Your task to perform on an android device: clear all cookies in the chrome app Image 0: 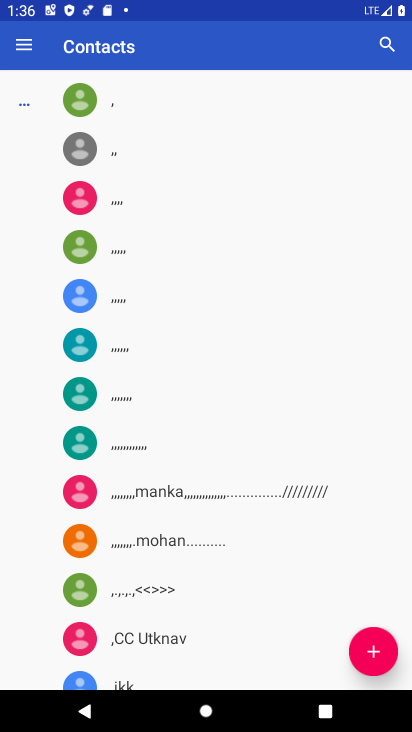
Step 0: press back button
Your task to perform on an android device: clear all cookies in the chrome app Image 1: 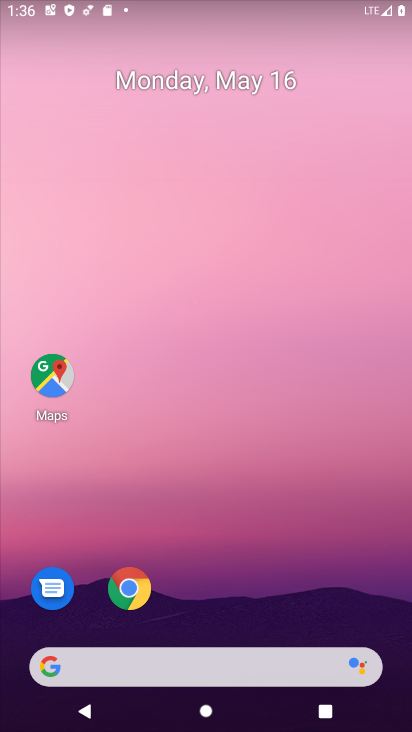
Step 1: click (126, 589)
Your task to perform on an android device: clear all cookies in the chrome app Image 2: 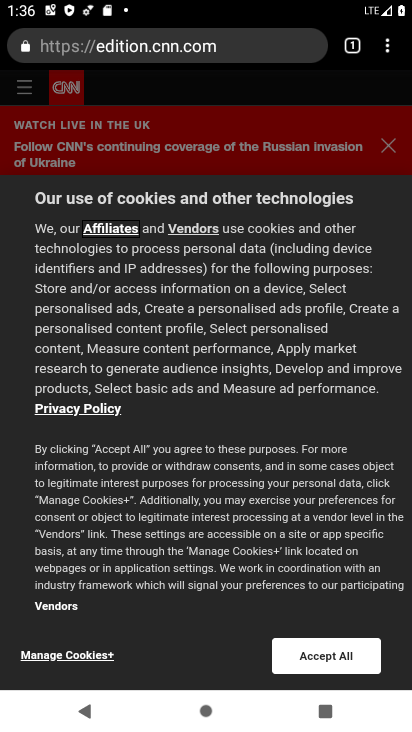
Step 2: click (387, 48)
Your task to perform on an android device: clear all cookies in the chrome app Image 3: 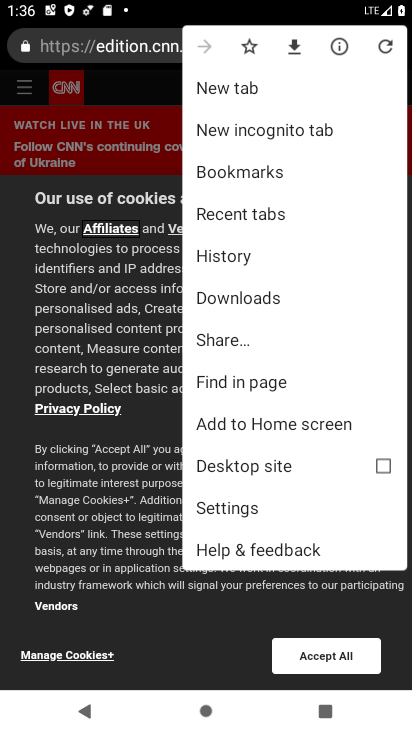
Step 3: click (234, 506)
Your task to perform on an android device: clear all cookies in the chrome app Image 4: 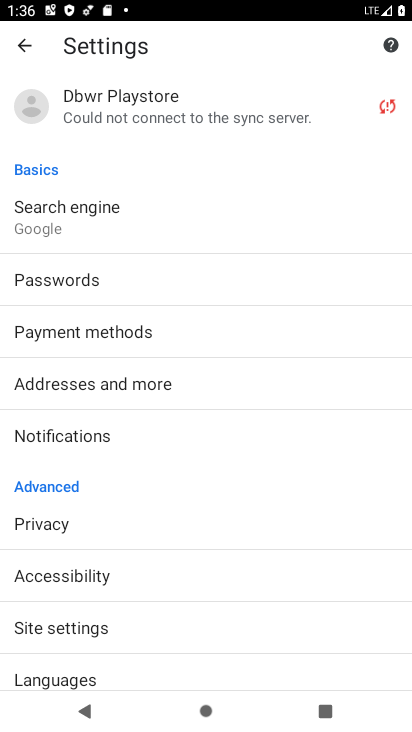
Step 4: click (56, 518)
Your task to perform on an android device: clear all cookies in the chrome app Image 5: 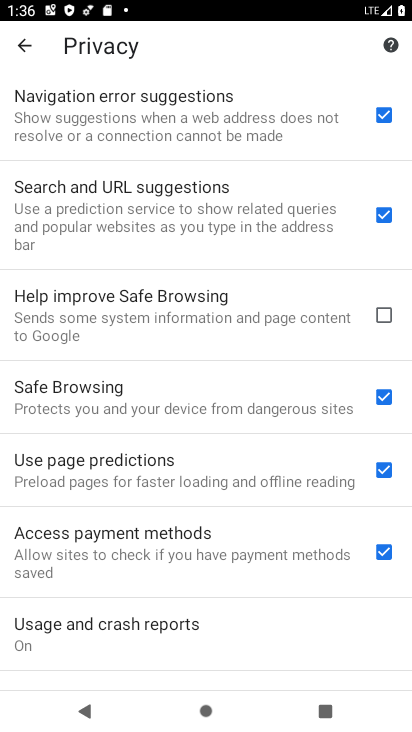
Step 5: drag from (73, 620) to (176, 445)
Your task to perform on an android device: clear all cookies in the chrome app Image 6: 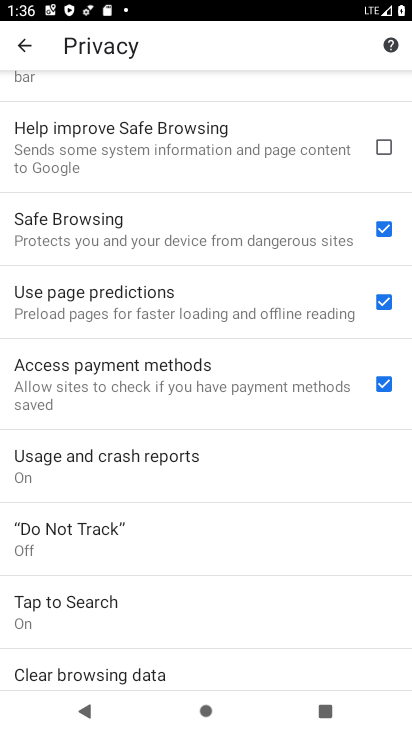
Step 6: drag from (124, 625) to (206, 429)
Your task to perform on an android device: clear all cookies in the chrome app Image 7: 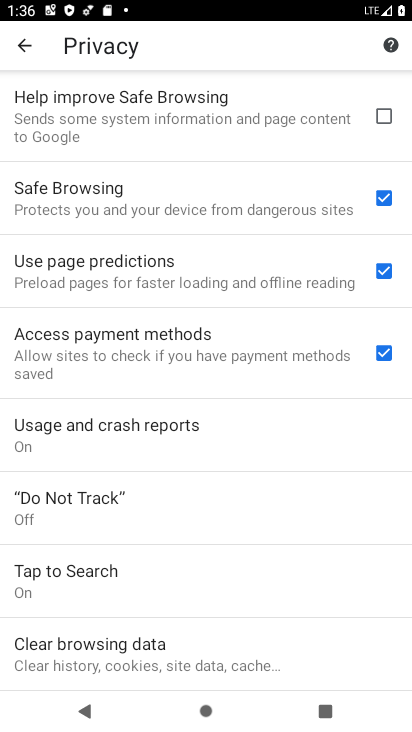
Step 7: click (101, 638)
Your task to perform on an android device: clear all cookies in the chrome app Image 8: 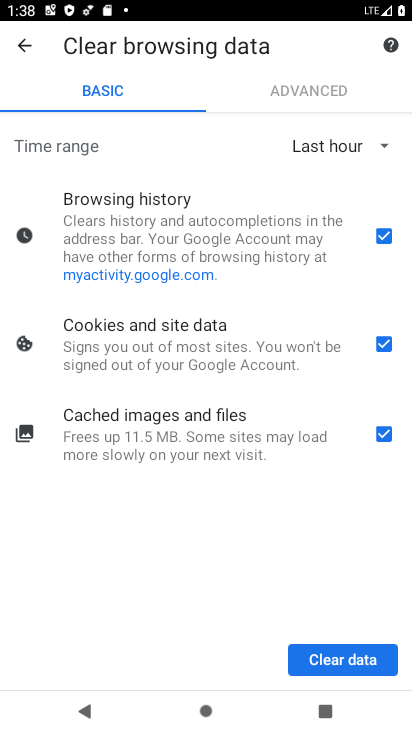
Step 8: click (382, 432)
Your task to perform on an android device: clear all cookies in the chrome app Image 9: 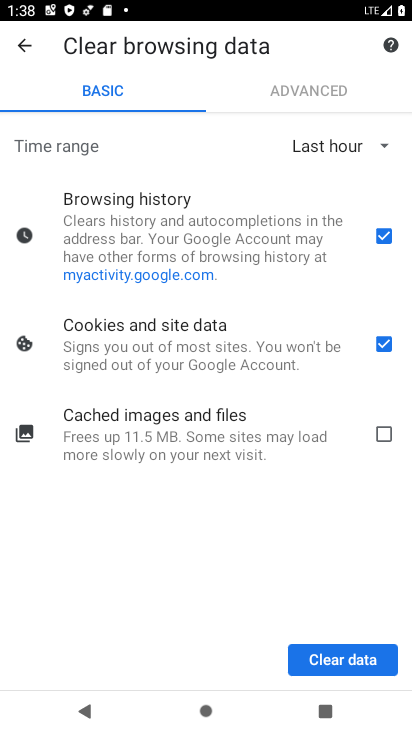
Step 9: click (374, 238)
Your task to perform on an android device: clear all cookies in the chrome app Image 10: 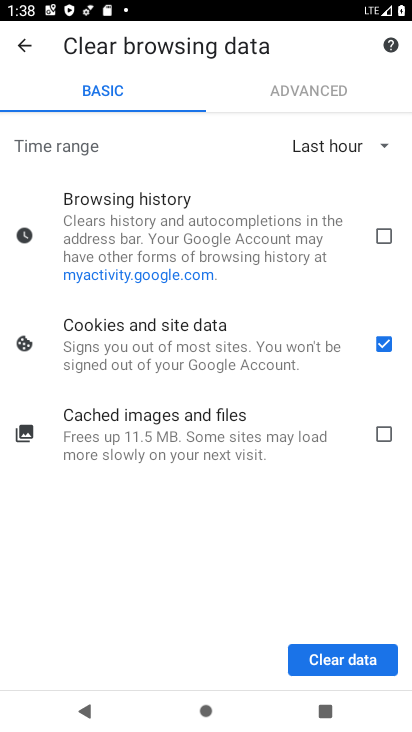
Step 10: click (348, 660)
Your task to perform on an android device: clear all cookies in the chrome app Image 11: 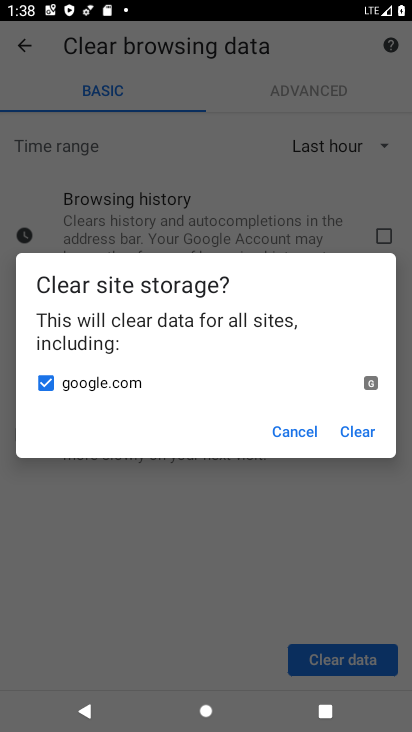
Step 11: click (357, 425)
Your task to perform on an android device: clear all cookies in the chrome app Image 12: 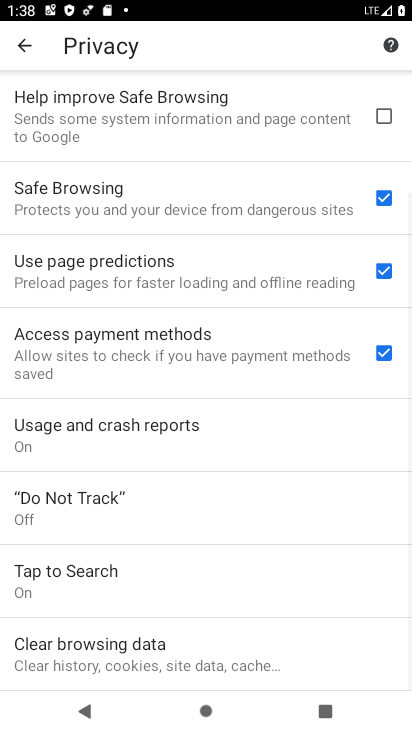
Step 12: task complete